Your task to perform on an android device: Play the last video I watched on Youtube Image 0: 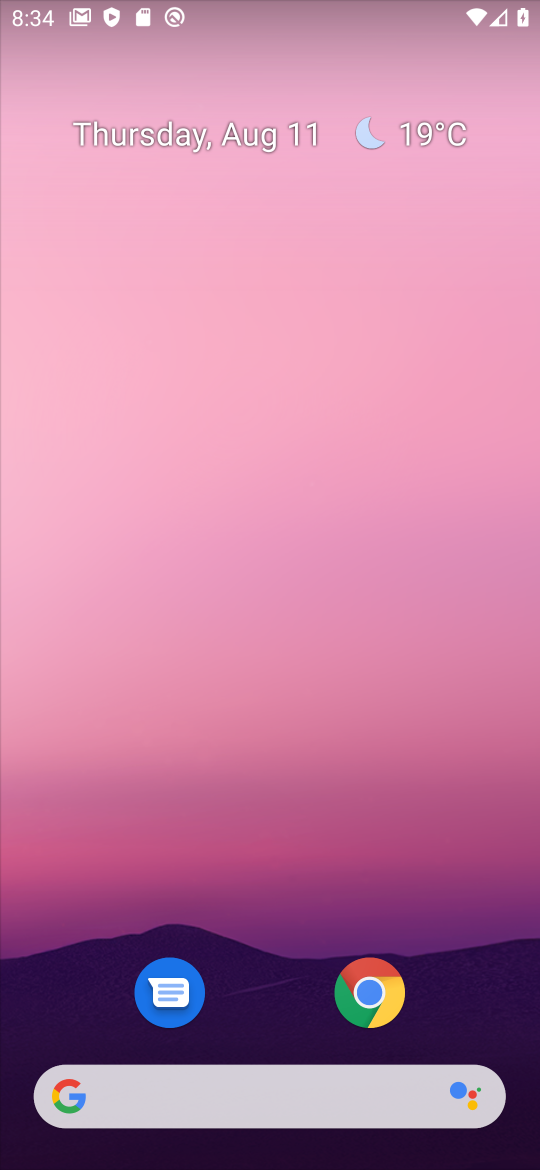
Step 0: drag from (276, 936) to (190, 190)
Your task to perform on an android device: Play the last video I watched on Youtube Image 1: 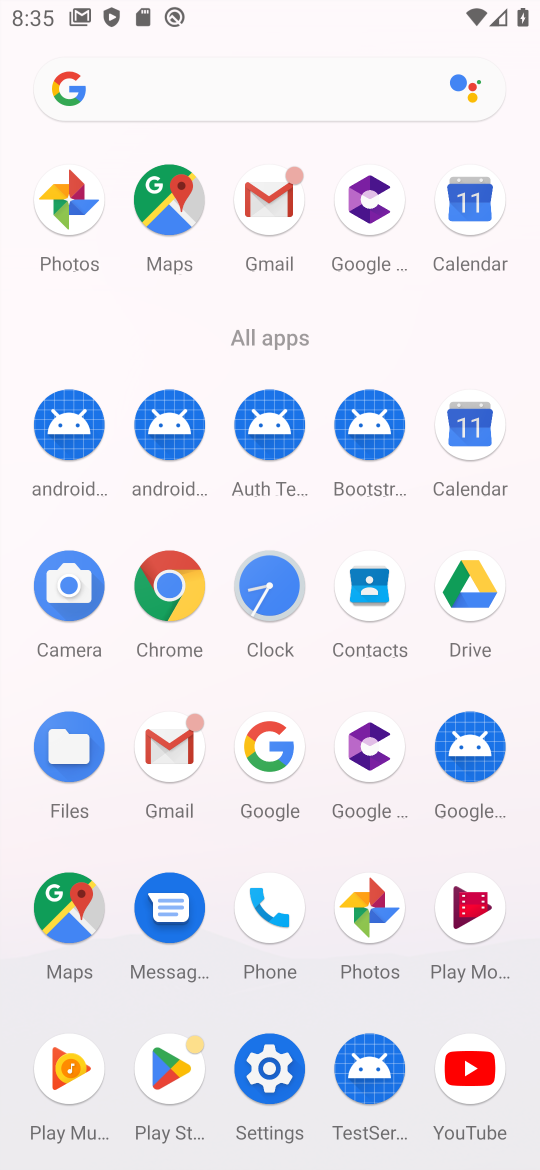
Step 1: click (485, 1063)
Your task to perform on an android device: Play the last video I watched on Youtube Image 2: 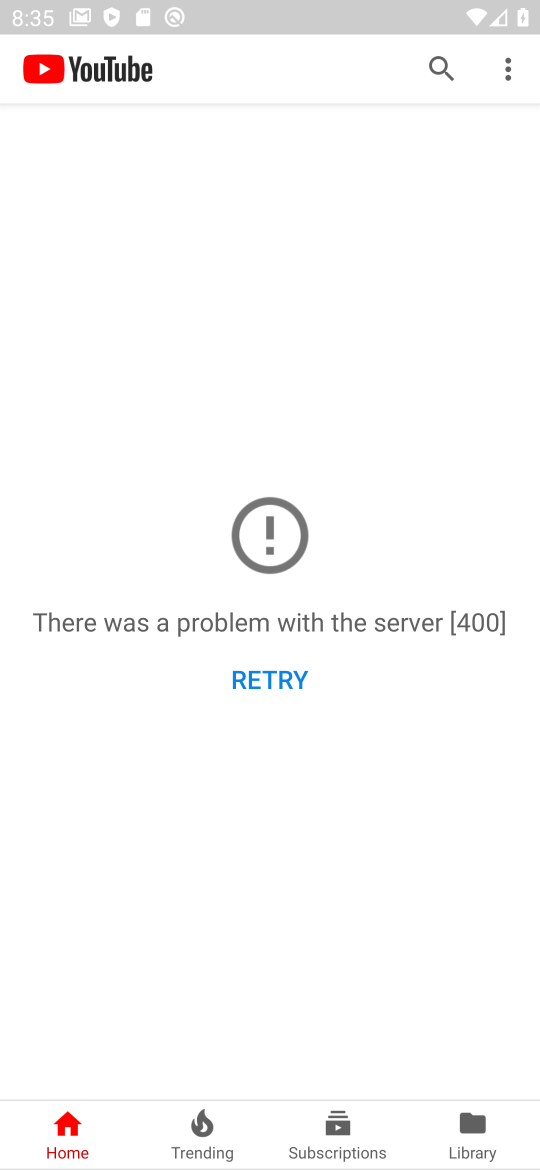
Step 2: task complete